Your task to perform on an android device: turn on the 24-hour format for clock Image 0: 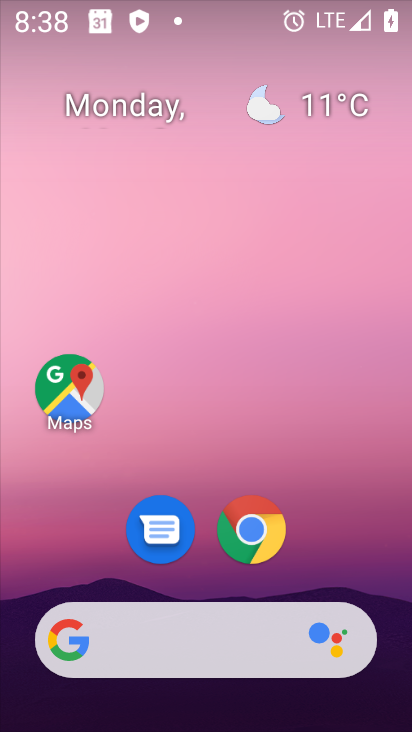
Step 0: drag from (185, 632) to (220, 14)
Your task to perform on an android device: turn on the 24-hour format for clock Image 1: 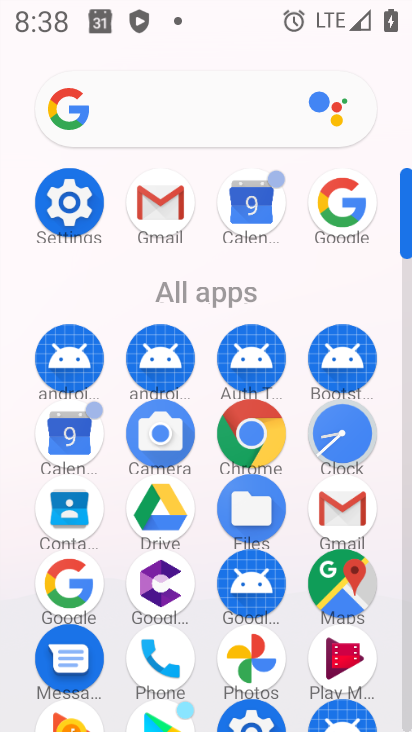
Step 1: click (81, 196)
Your task to perform on an android device: turn on the 24-hour format for clock Image 2: 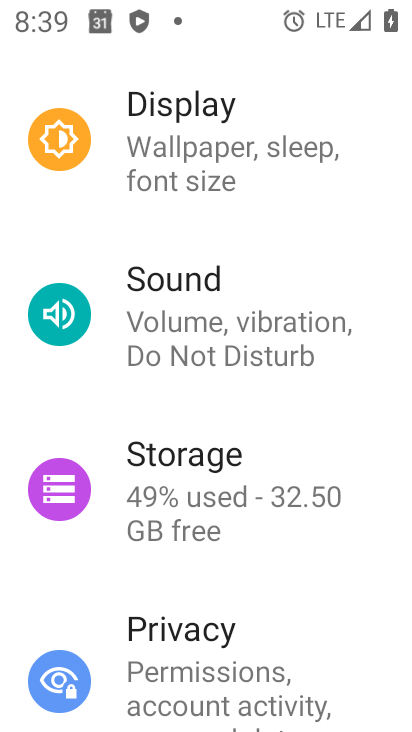
Step 2: drag from (152, 571) to (162, 29)
Your task to perform on an android device: turn on the 24-hour format for clock Image 3: 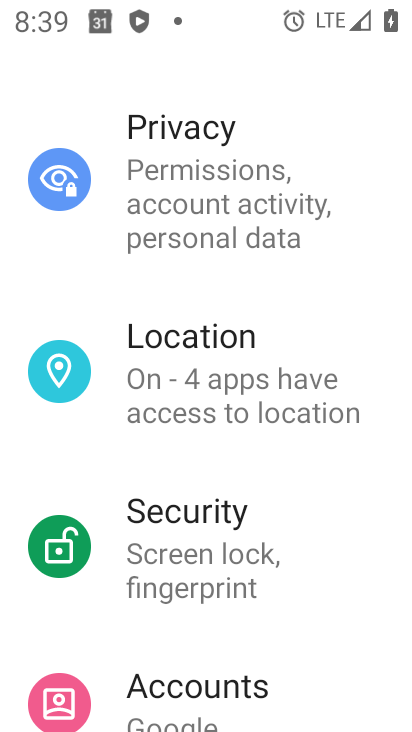
Step 3: drag from (180, 464) to (118, 10)
Your task to perform on an android device: turn on the 24-hour format for clock Image 4: 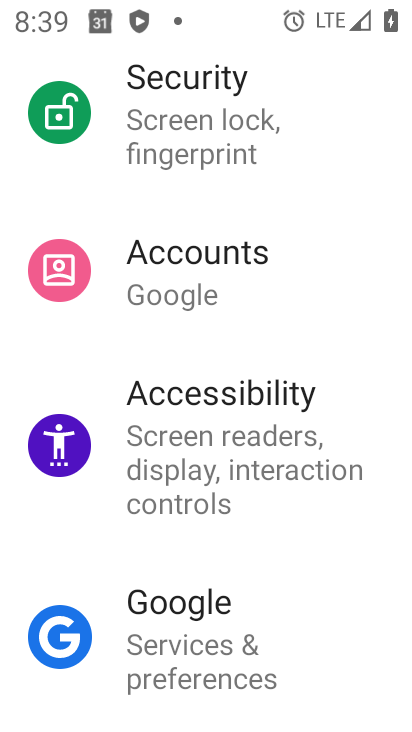
Step 4: drag from (183, 575) to (191, 24)
Your task to perform on an android device: turn on the 24-hour format for clock Image 5: 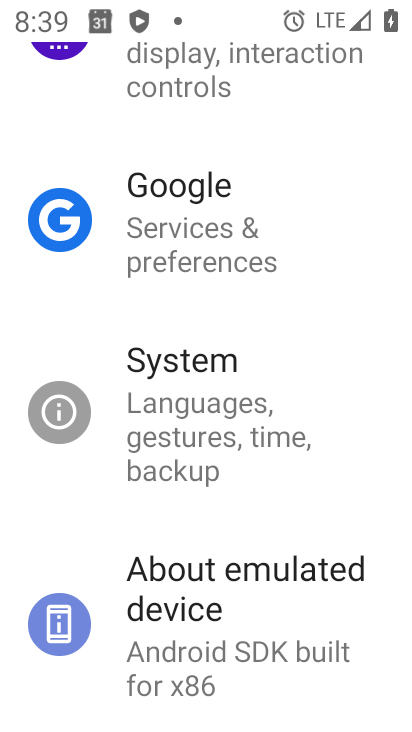
Step 5: click (167, 473)
Your task to perform on an android device: turn on the 24-hour format for clock Image 6: 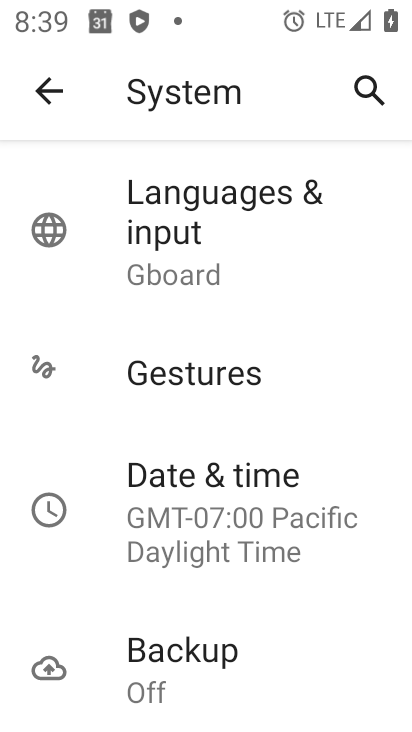
Step 6: click (193, 503)
Your task to perform on an android device: turn on the 24-hour format for clock Image 7: 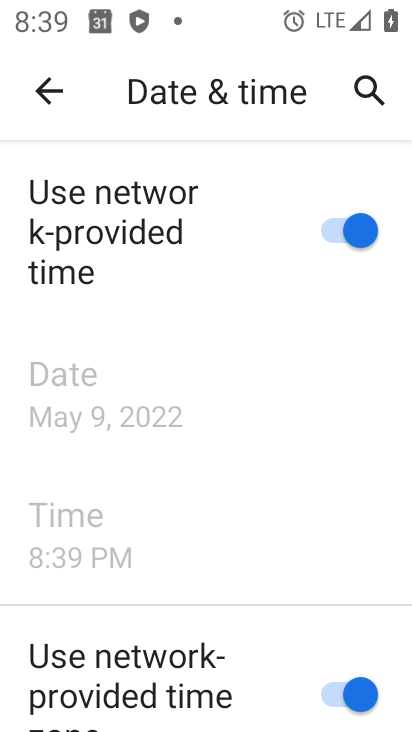
Step 7: drag from (185, 644) to (29, 25)
Your task to perform on an android device: turn on the 24-hour format for clock Image 8: 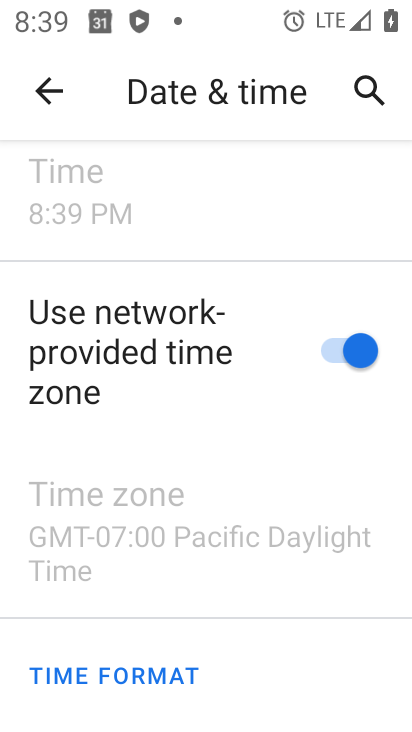
Step 8: drag from (270, 410) to (149, 18)
Your task to perform on an android device: turn on the 24-hour format for clock Image 9: 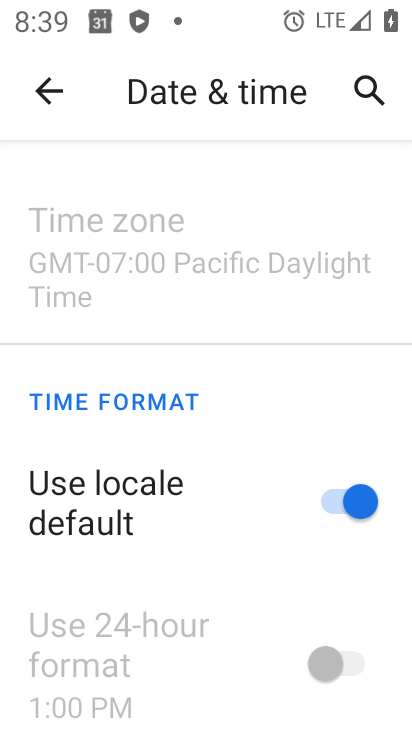
Step 9: click (343, 500)
Your task to perform on an android device: turn on the 24-hour format for clock Image 10: 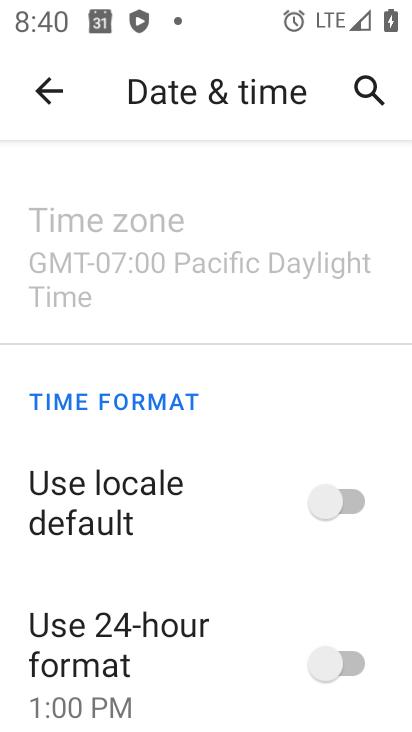
Step 10: click (355, 670)
Your task to perform on an android device: turn on the 24-hour format for clock Image 11: 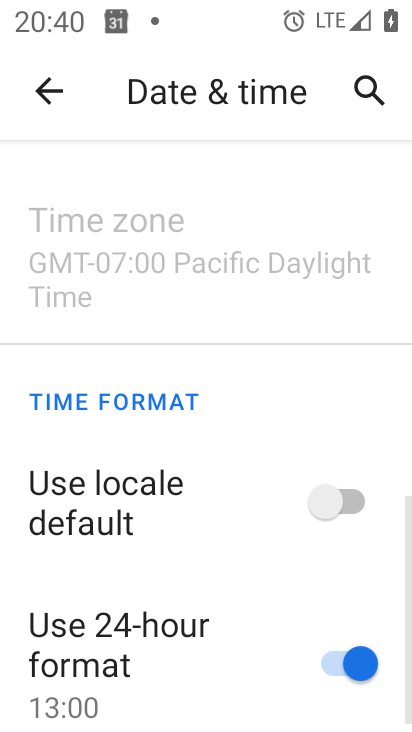
Step 11: task complete